Your task to perform on an android device: turn off airplane mode Image 0: 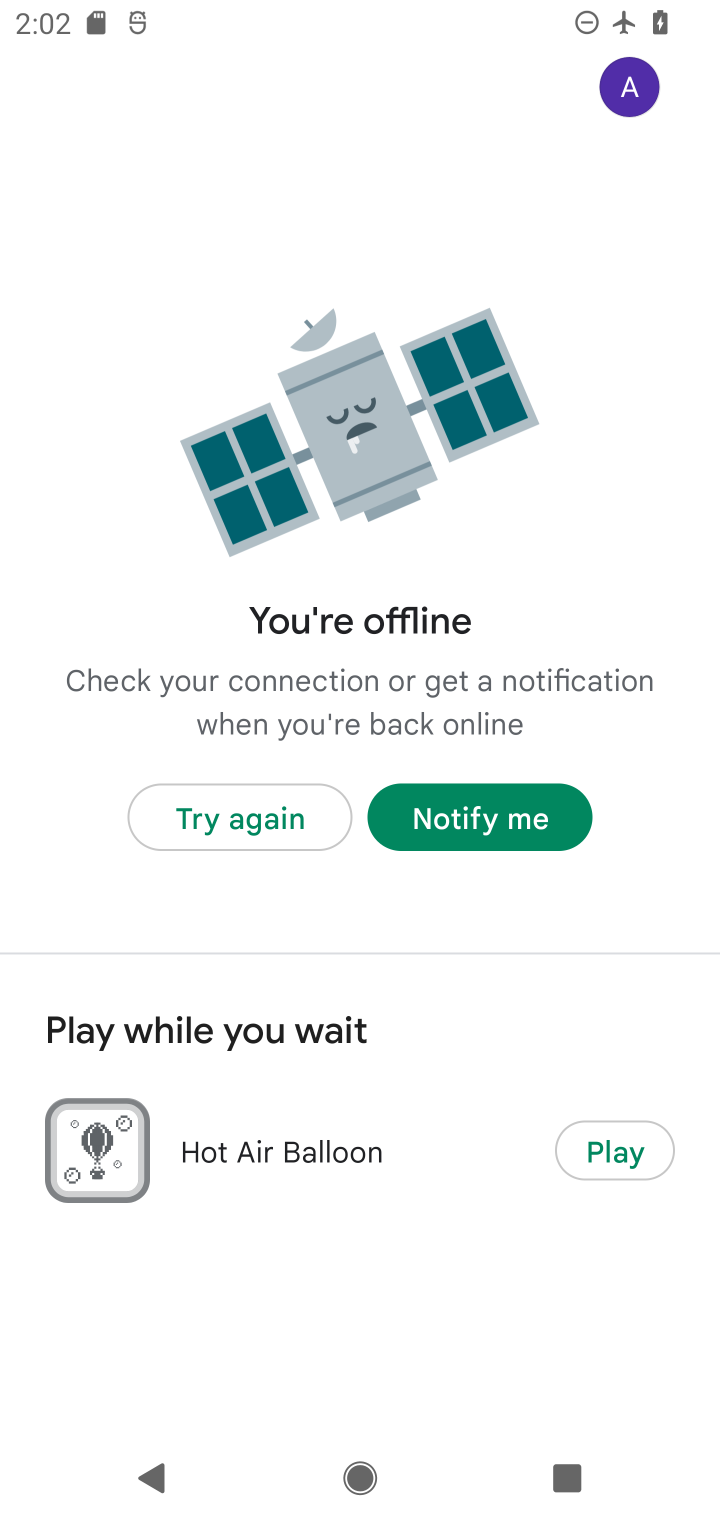
Step 0: press home button
Your task to perform on an android device: turn off airplane mode Image 1: 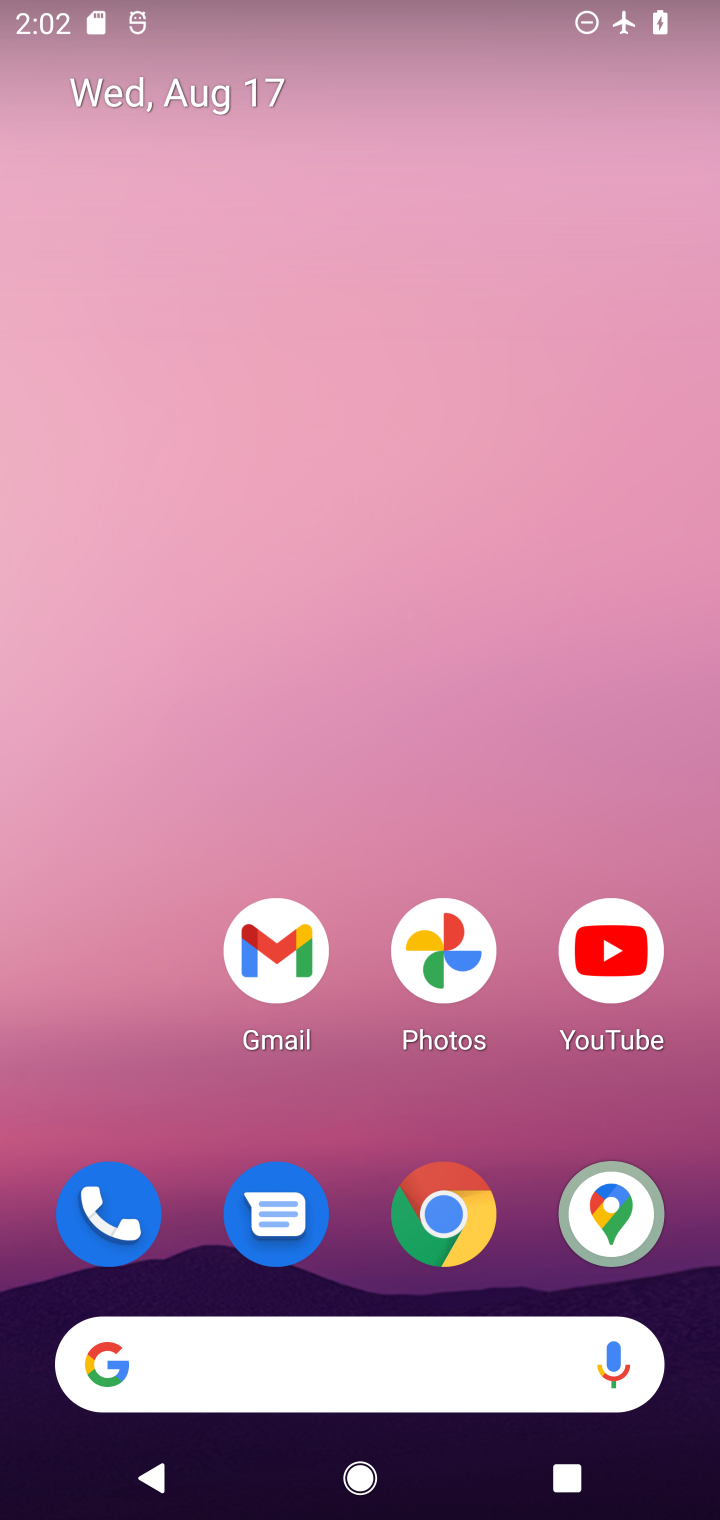
Step 1: drag from (341, 402) to (328, 0)
Your task to perform on an android device: turn off airplane mode Image 2: 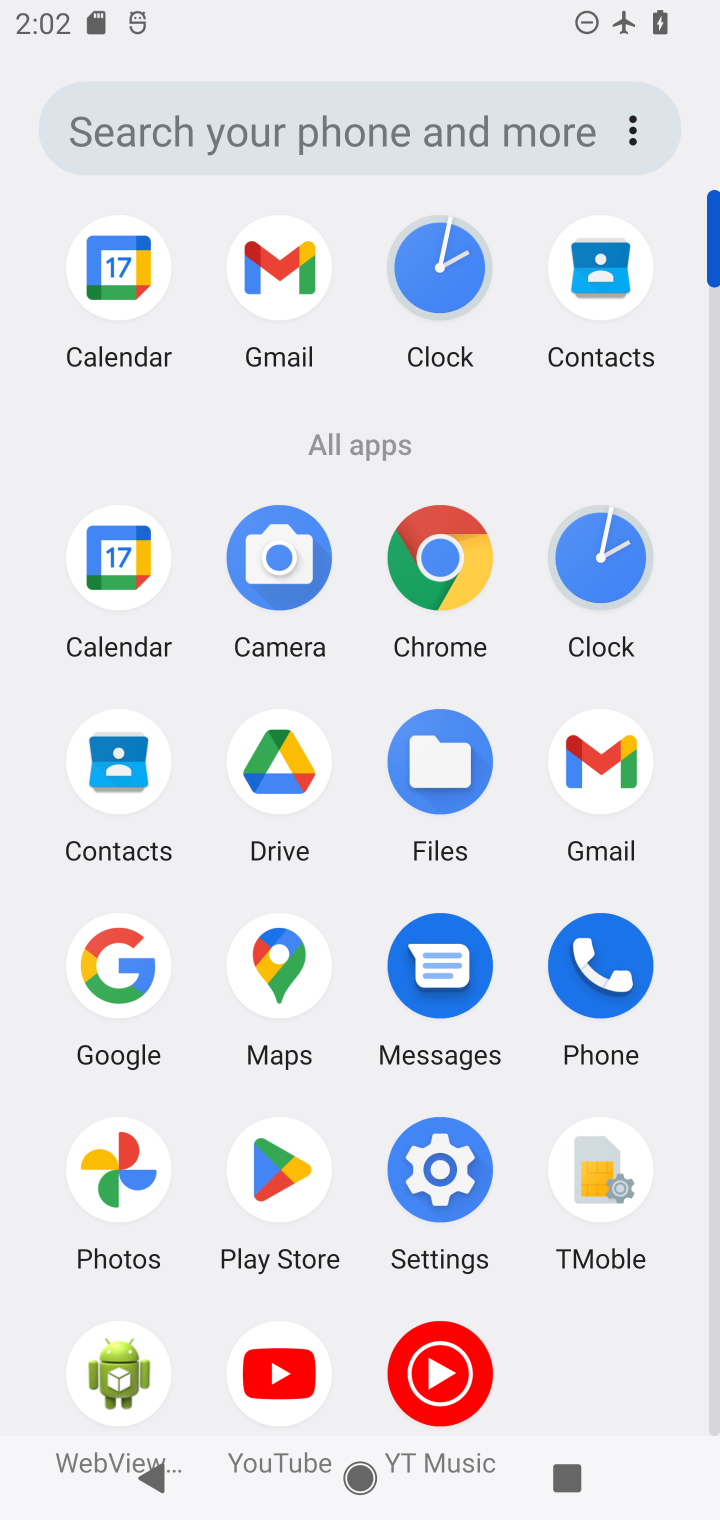
Step 2: press home button
Your task to perform on an android device: turn off airplane mode Image 3: 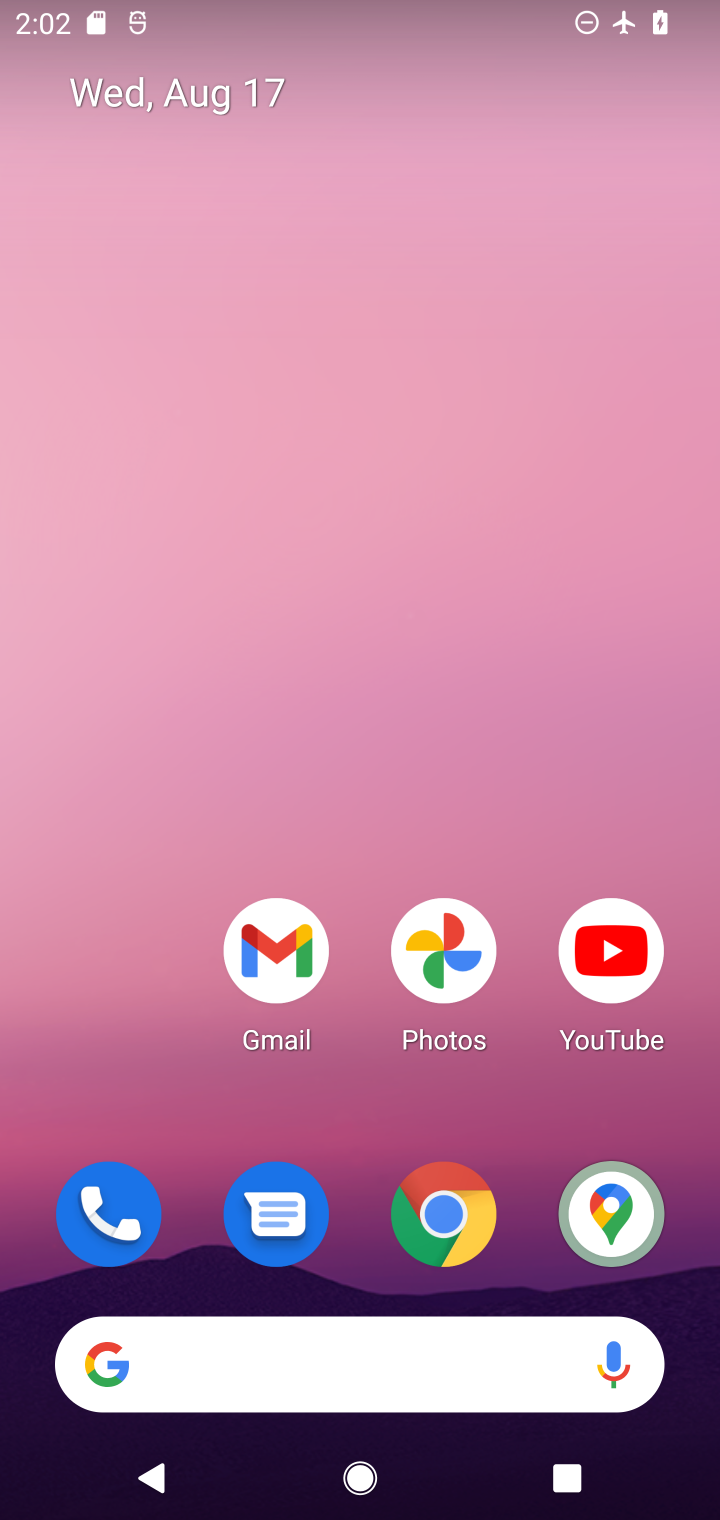
Step 3: drag from (388, 1086) to (388, 128)
Your task to perform on an android device: turn off airplane mode Image 4: 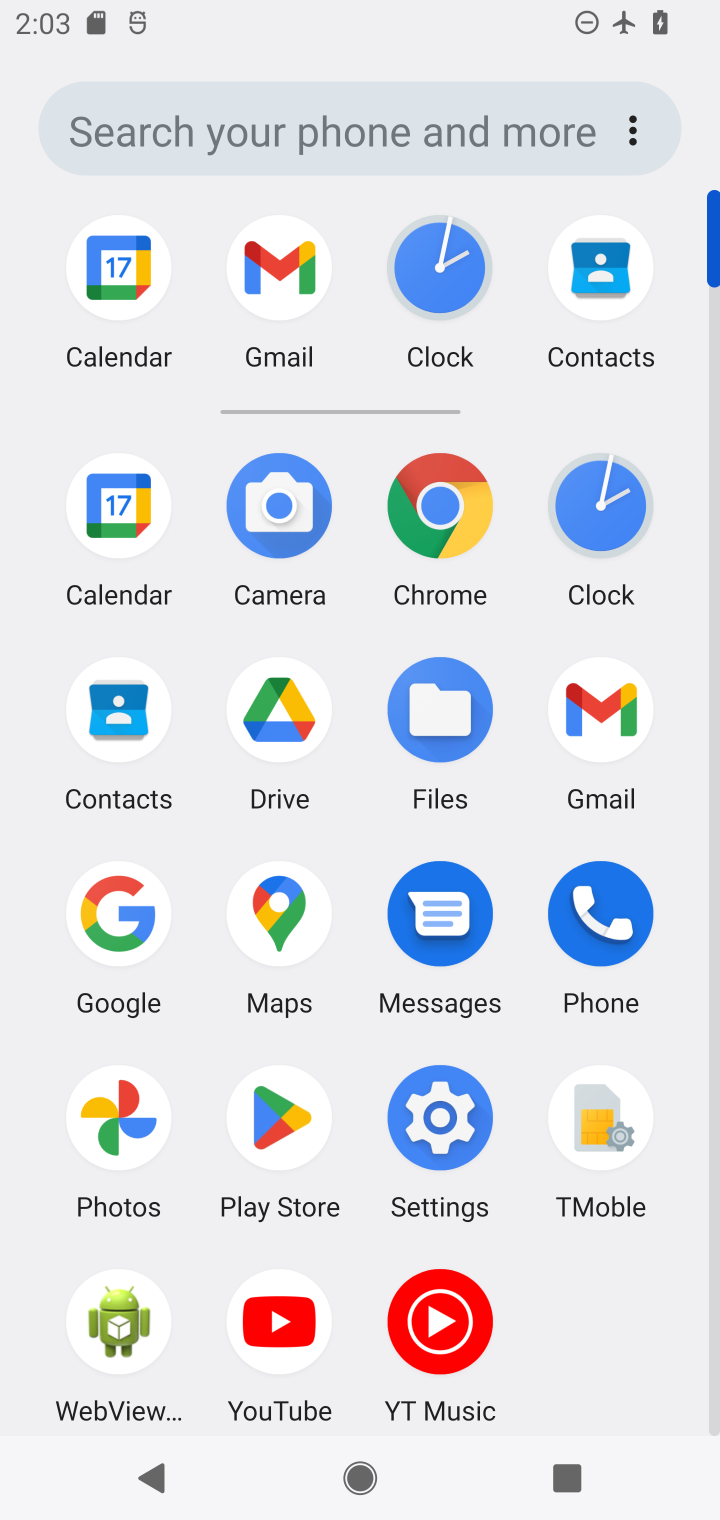
Step 4: click (442, 1102)
Your task to perform on an android device: turn off airplane mode Image 5: 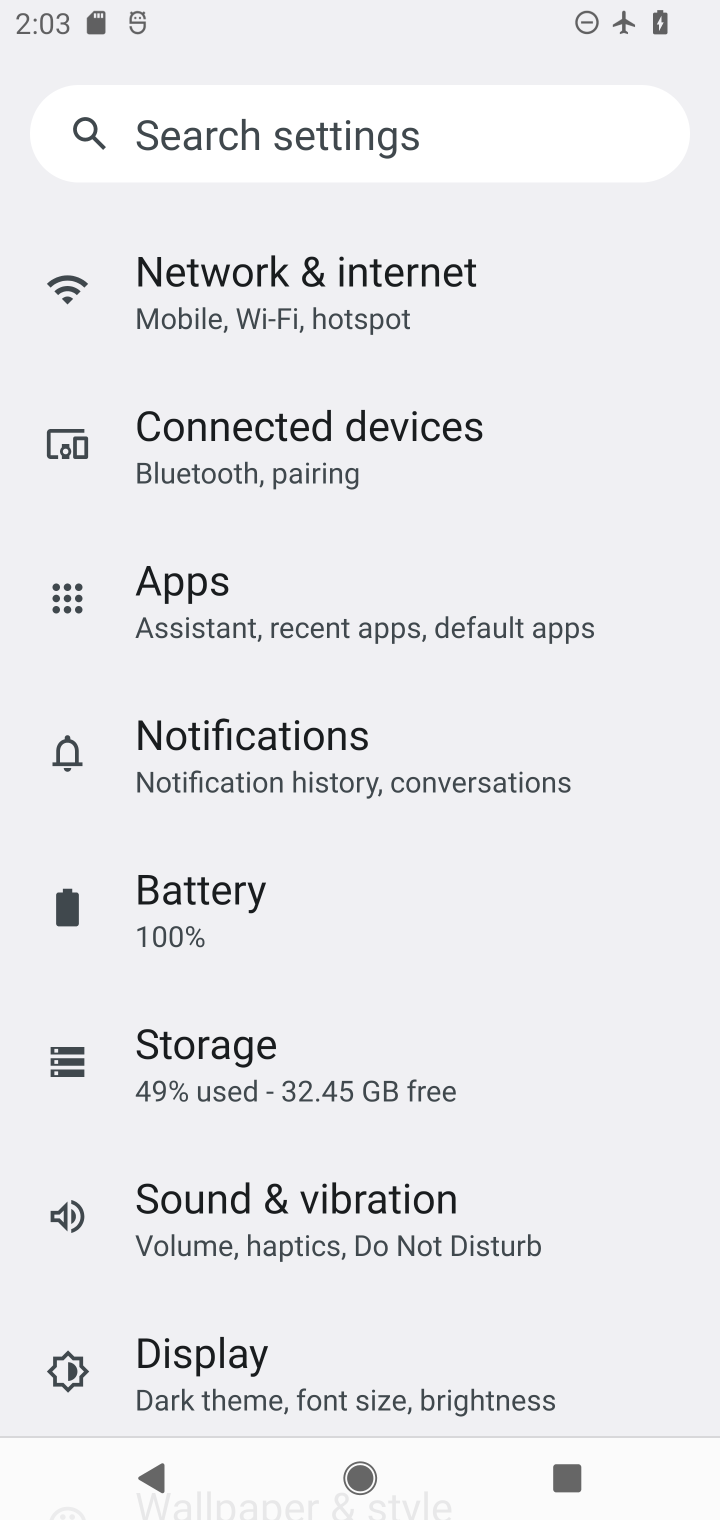
Step 5: click (296, 269)
Your task to perform on an android device: turn off airplane mode Image 6: 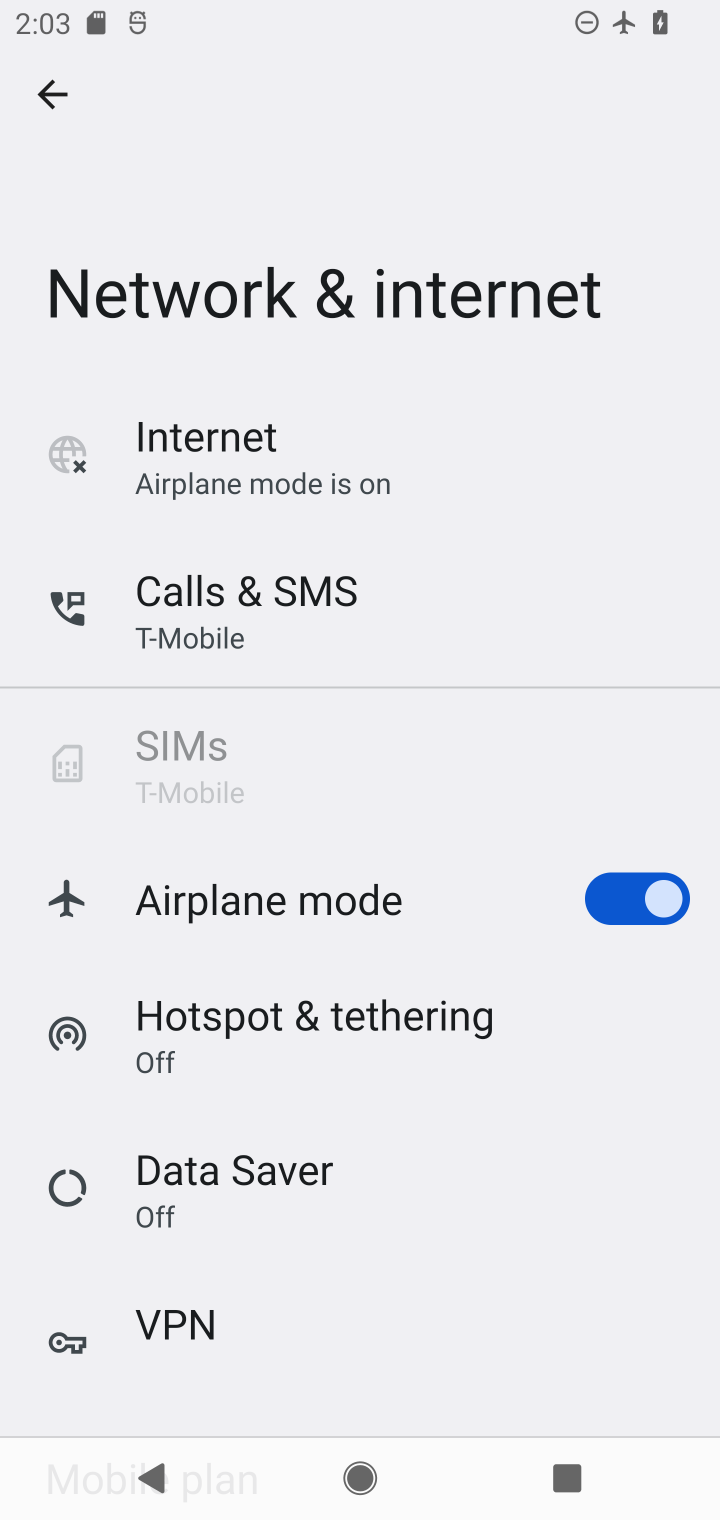
Step 6: click (629, 907)
Your task to perform on an android device: turn off airplane mode Image 7: 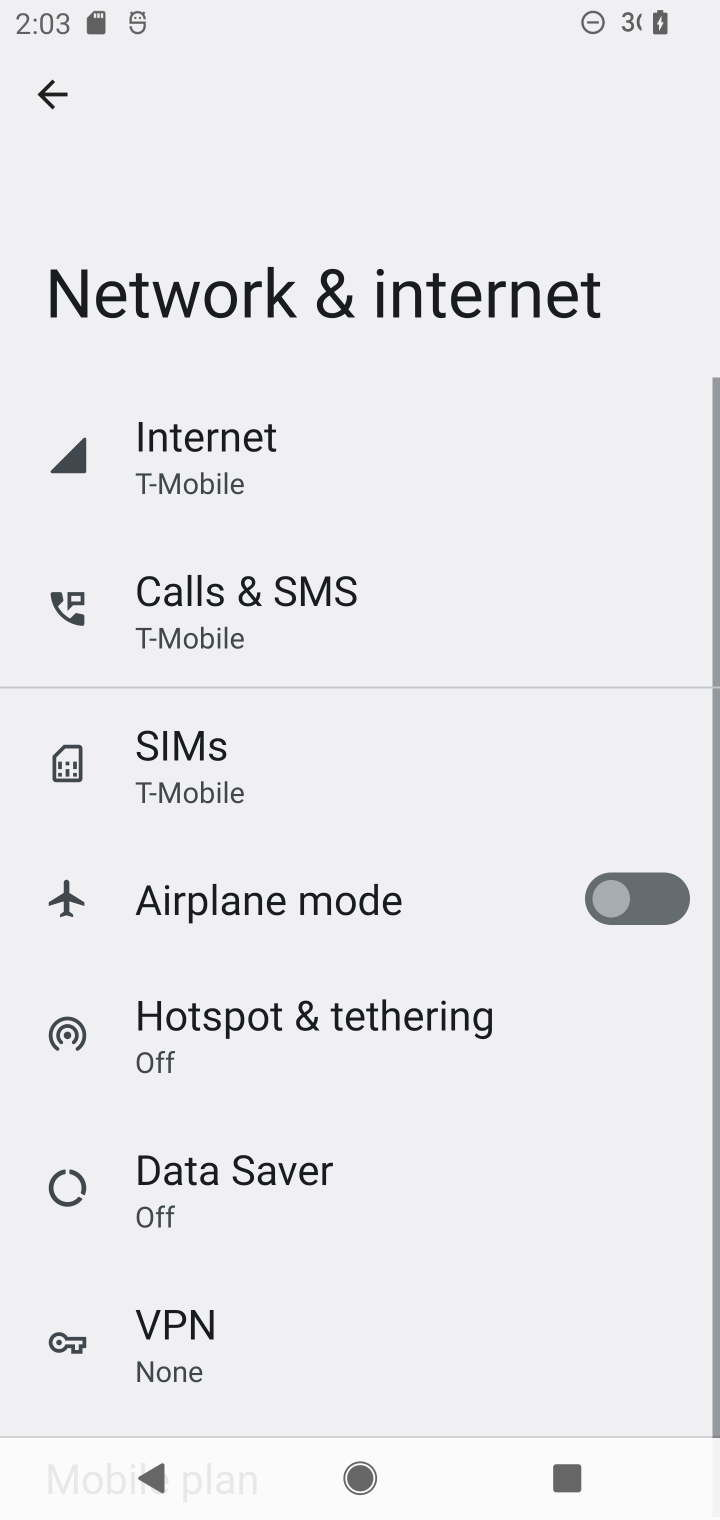
Step 7: task complete